Your task to perform on an android device: Go to Maps Image 0: 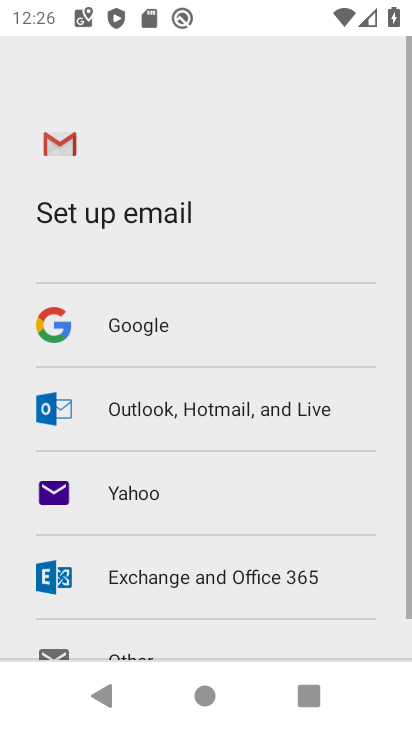
Step 0: press home button
Your task to perform on an android device: Go to Maps Image 1: 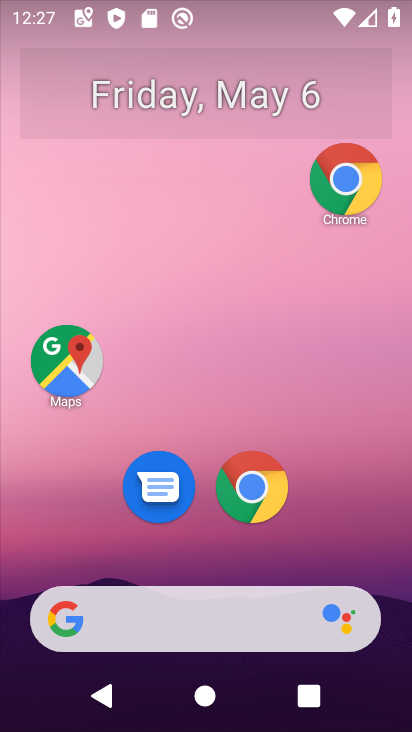
Step 1: click (50, 373)
Your task to perform on an android device: Go to Maps Image 2: 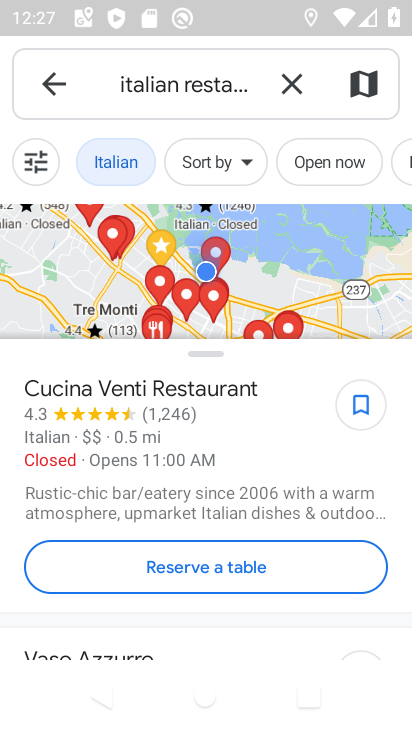
Step 2: task complete